Your task to perform on an android device: Go to location settings Image 0: 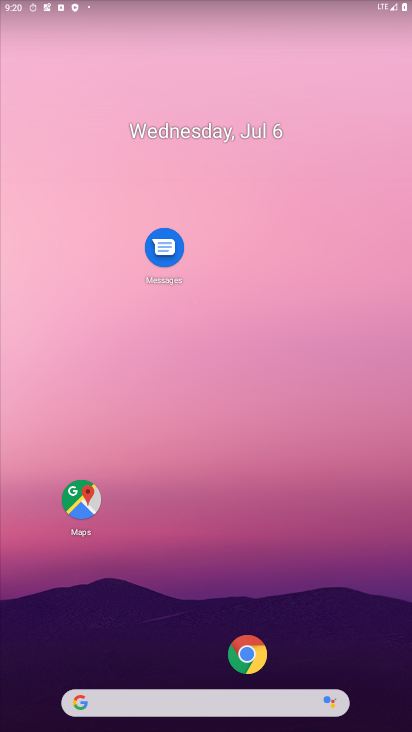
Step 0: drag from (219, 79) to (208, 611)
Your task to perform on an android device: Go to location settings Image 1: 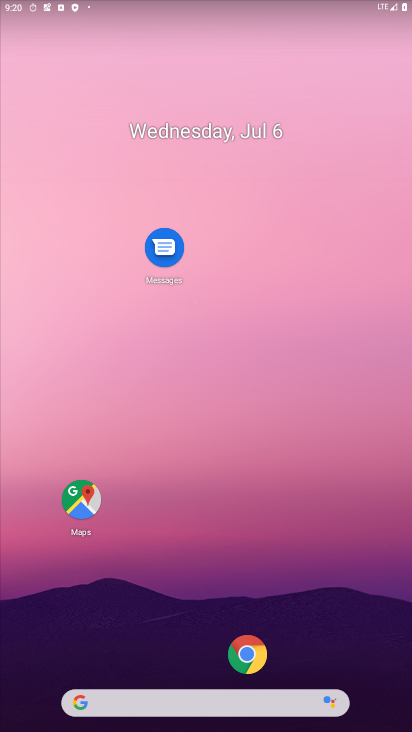
Step 1: drag from (151, 6) to (137, 589)
Your task to perform on an android device: Go to location settings Image 2: 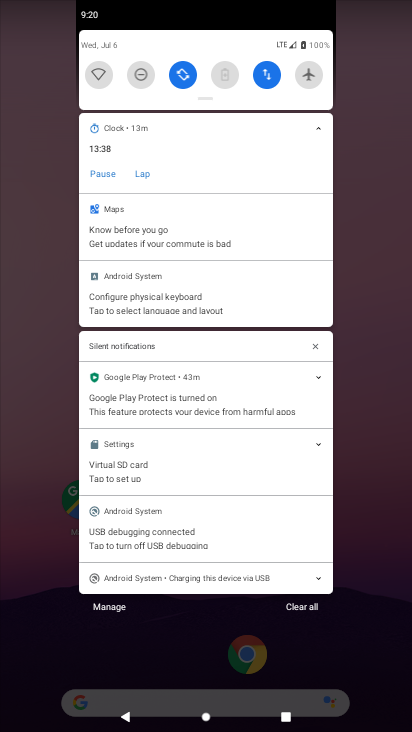
Step 2: drag from (205, 52) to (230, 607)
Your task to perform on an android device: Go to location settings Image 3: 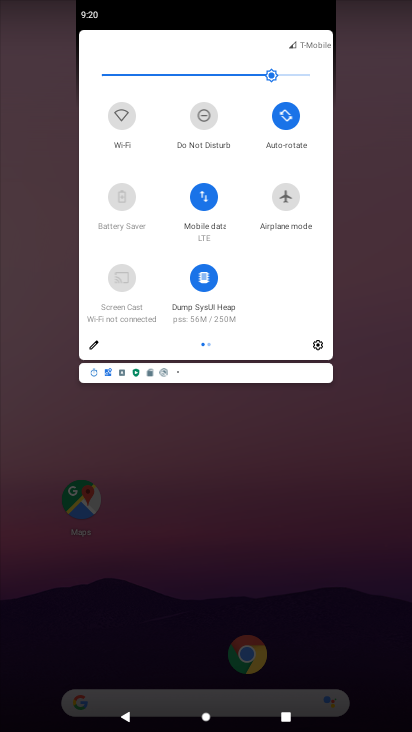
Step 3: click (319, 347)
Your task to perform on an android device: Go to location settings Image 4: 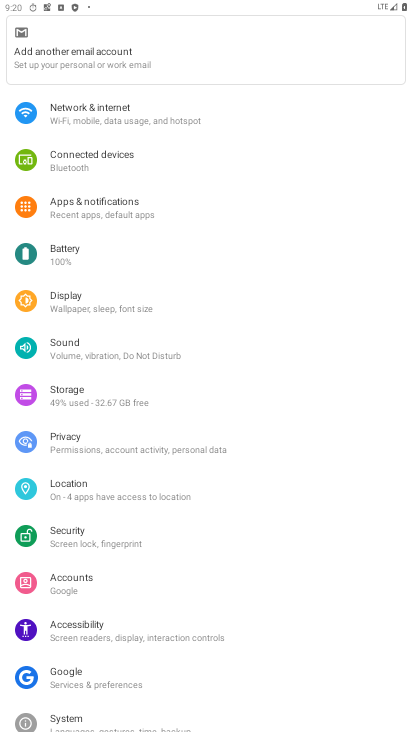
Step 4: click (139, 476)
Your task to perform on an android device: Go to location settings Image 5: 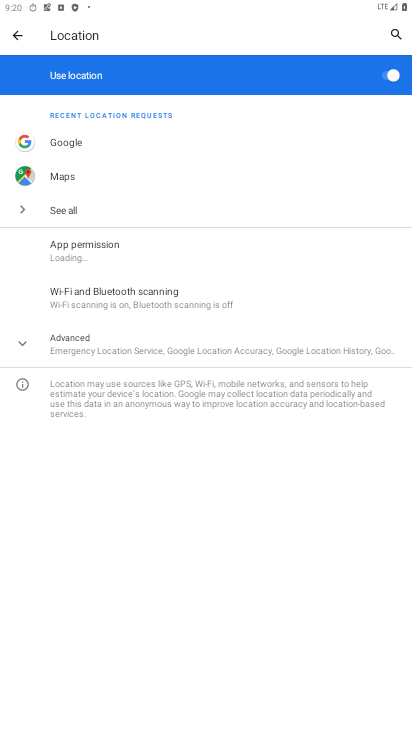
Step 5: task complete